Your task to perform on an android device: Open Google Maps and go to "Timeline" Image 0: 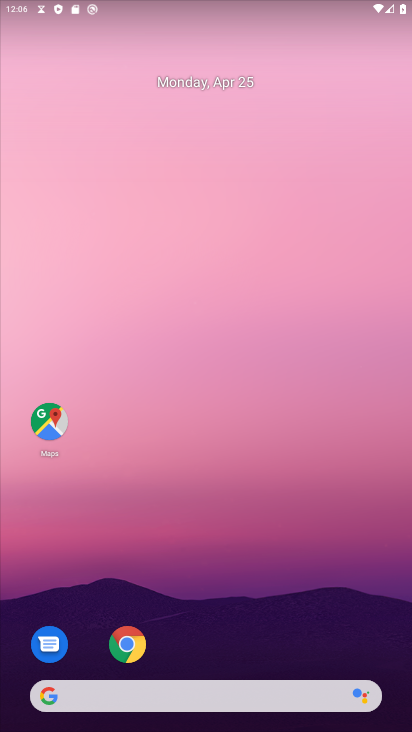
Step 0: click (45, 425)
Your task to perform on an android device: Open Google Maps and go to "Timeline" Image 1: 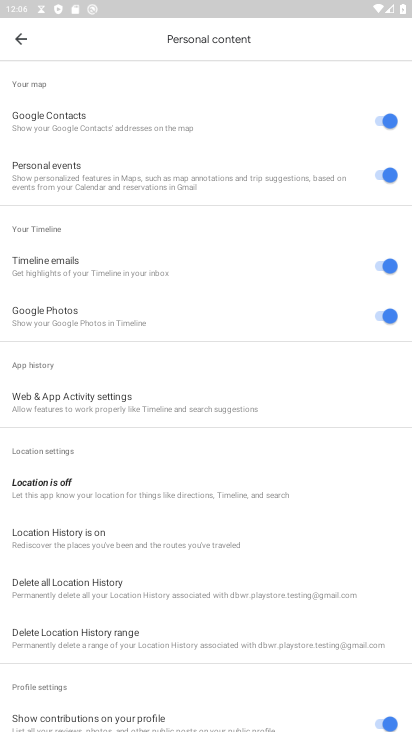
Step 1: click (21, 43)
Your task to perform on an android device: Open Google Maps and go to "Timeline" Image 2: 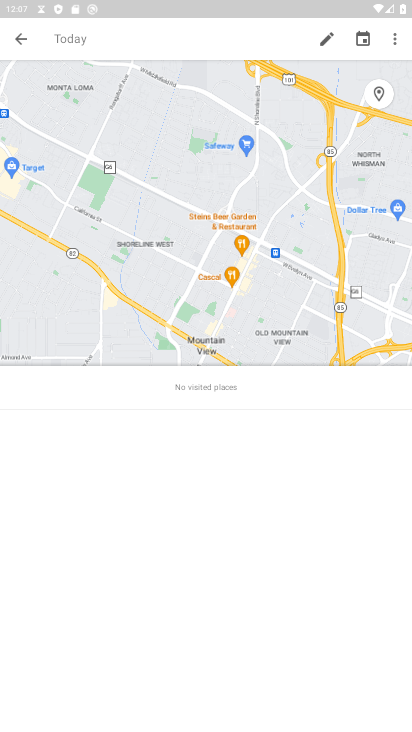
Step 2: task complete